Your task to perform on an android device: Open Google Chrome Image 0: 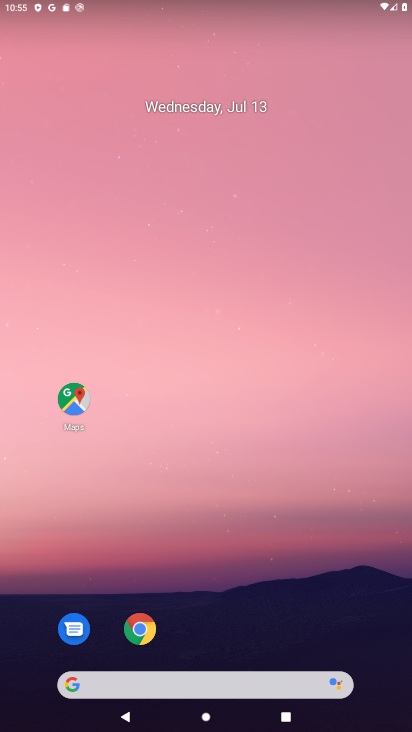
Step 0: click (140, 633)
Your task to perform on an android device: Open Google Chrome Image 1: 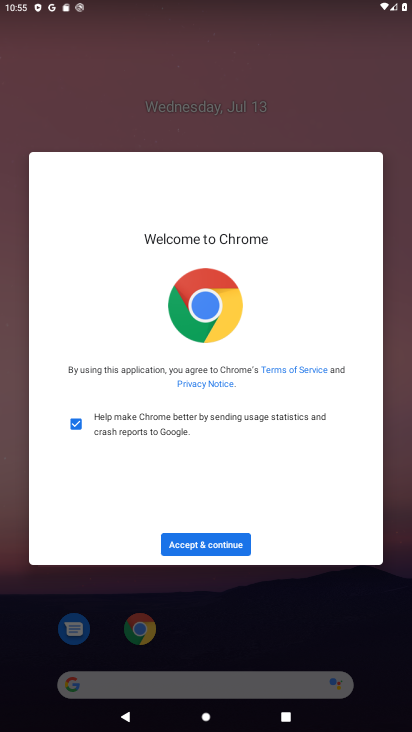
Step 1: click (193, 535)
Your task to perform on an android device: Open Google Chrome Image 2: 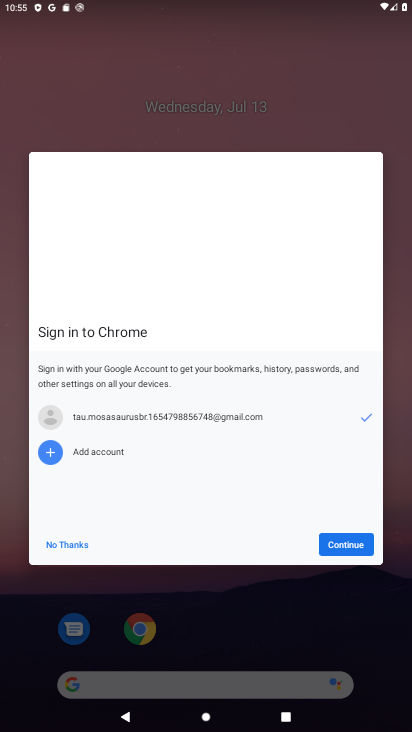
Step 2: click (342, 551)
Your task to perform on an android device: Open Google Chrome Image 3: 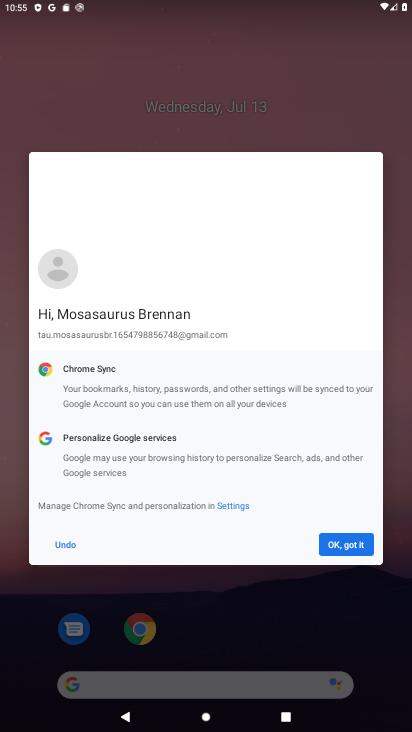
Step 3: click (342, 551)
Your task to perform on an android device: Open Google Chrome Image 4: 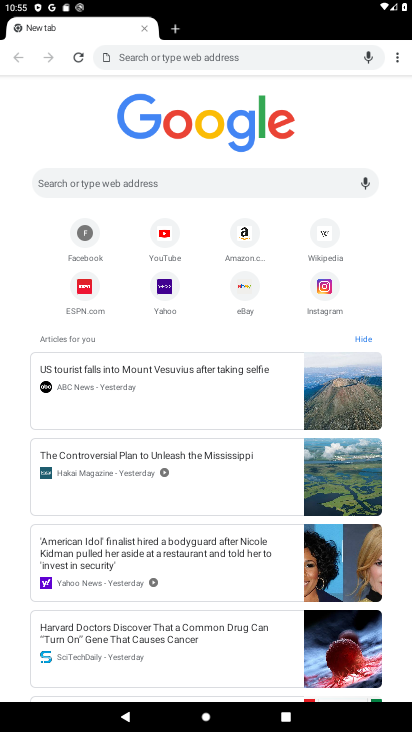
Step 4: task complete